Your task to perform on an android device: Search for lg ultragear on costco, select the first entry, and add it to the cart. Image 0: 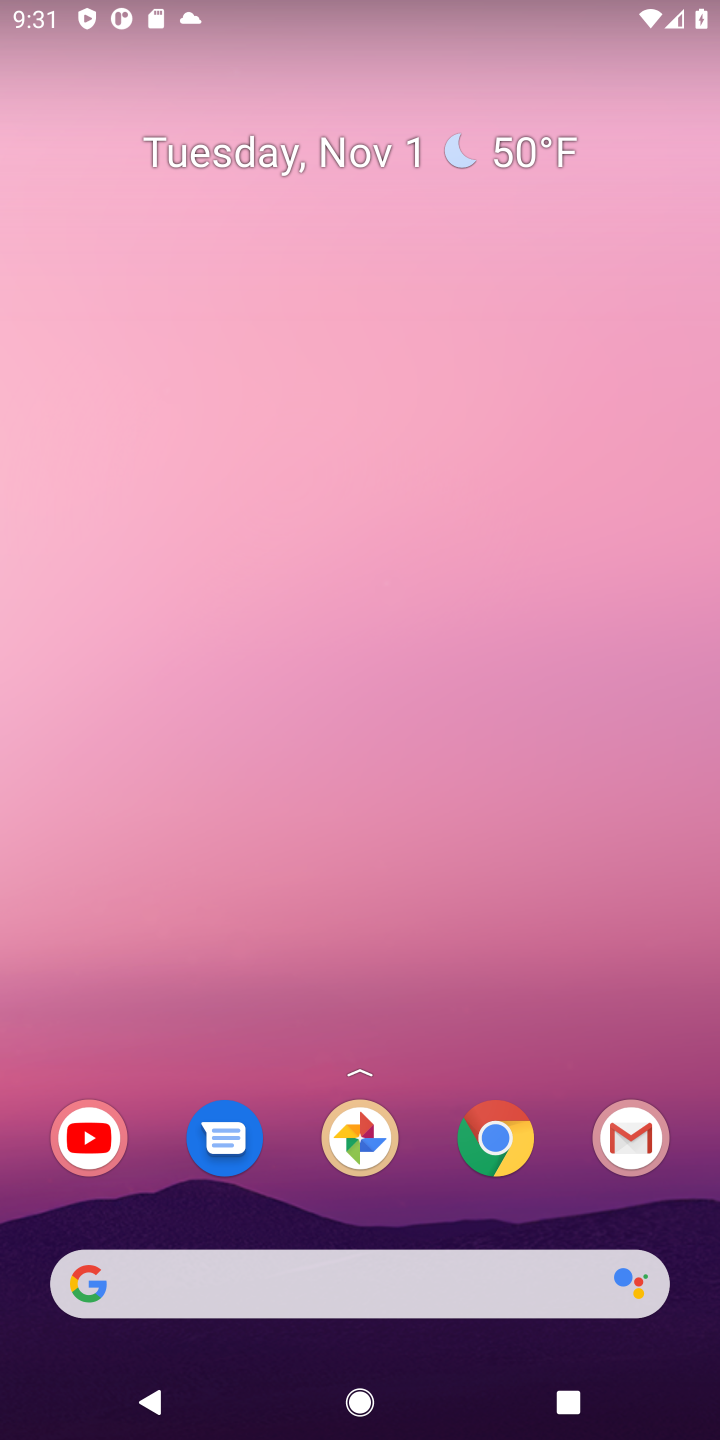
Step 0: click (502, 1144)
Your task to perform on an android device: Search for lg ultragear on costco, select the first entry, and add it to the cart. Image 1: 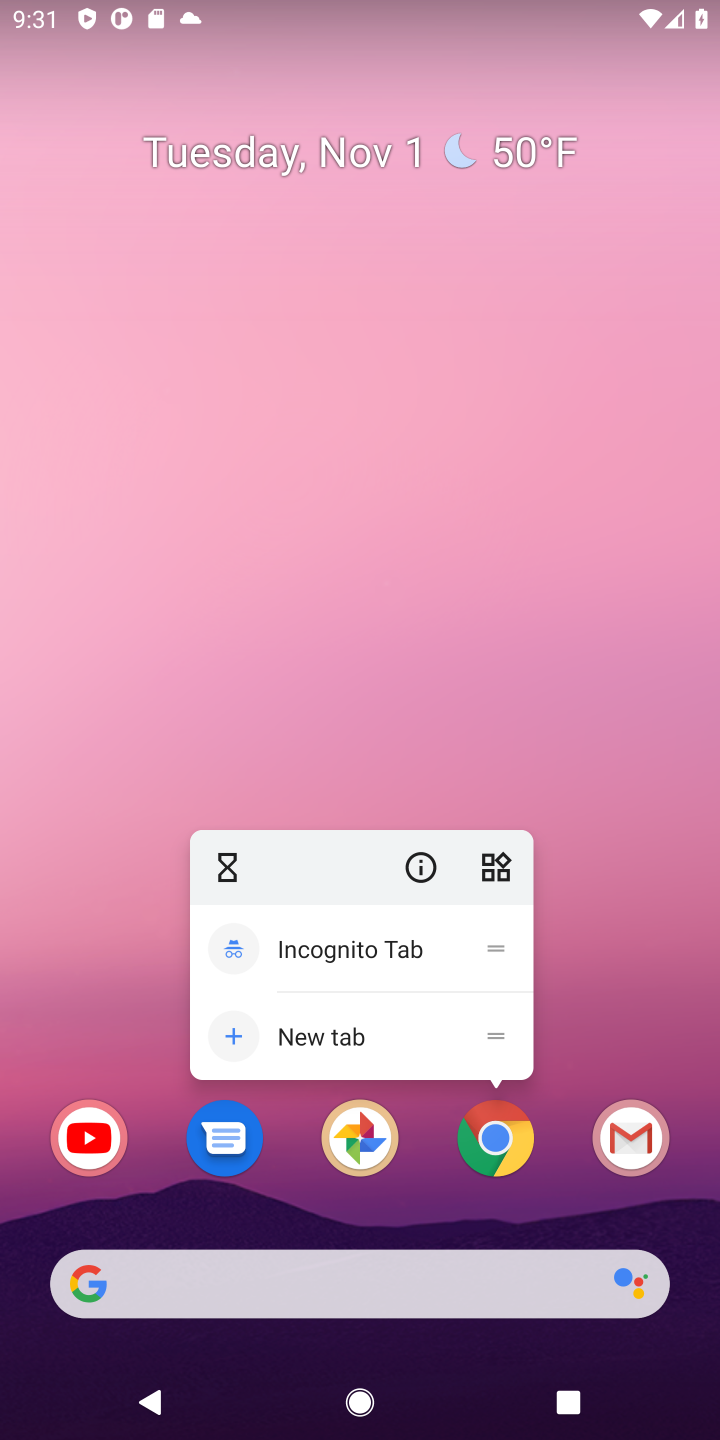
Step 1: click (495, 1139)
Your task to perform on an android device: Search for lg ultragear on costco, select the first entry, and add it to the cart. Image 2: 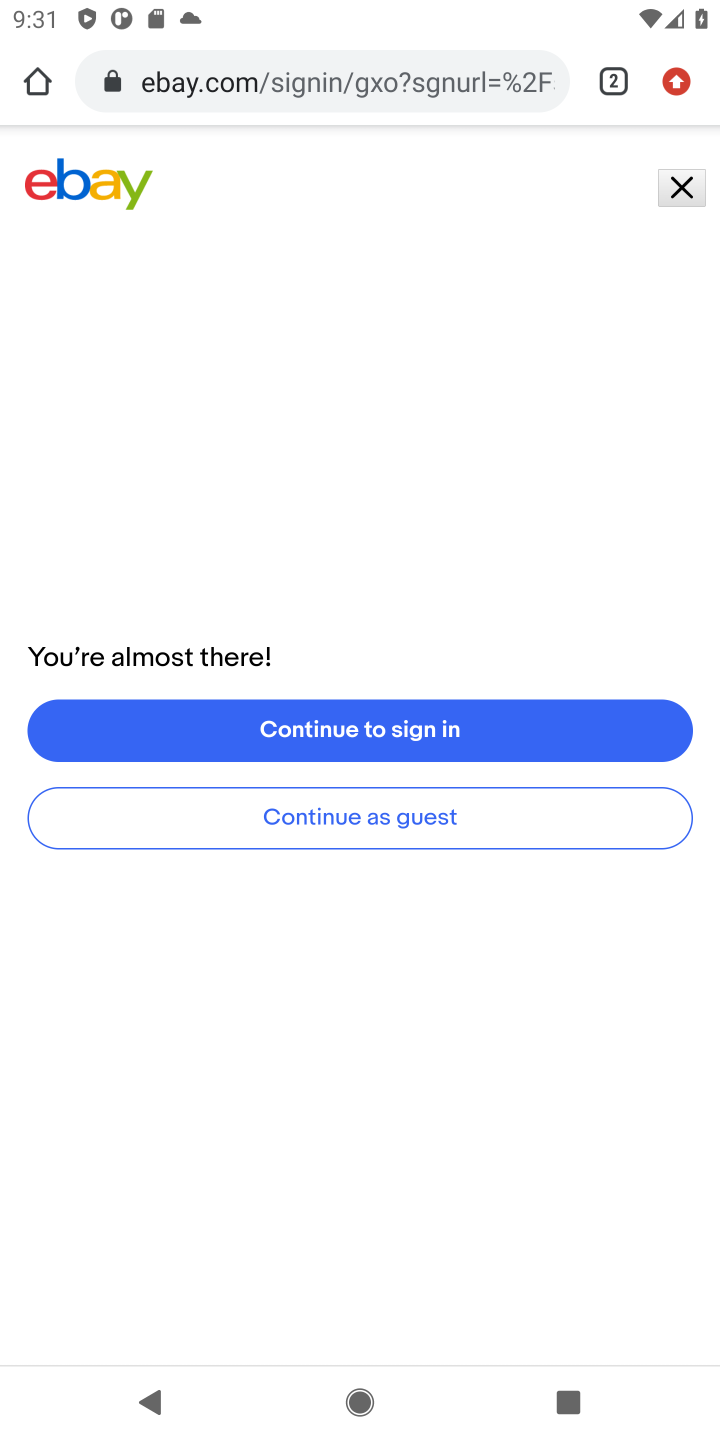
Step 2: click (394, 88)
Your task to perform on an android device: Search for lg ultragear on costco, select the first entry, and add it to the cart. Image 3: 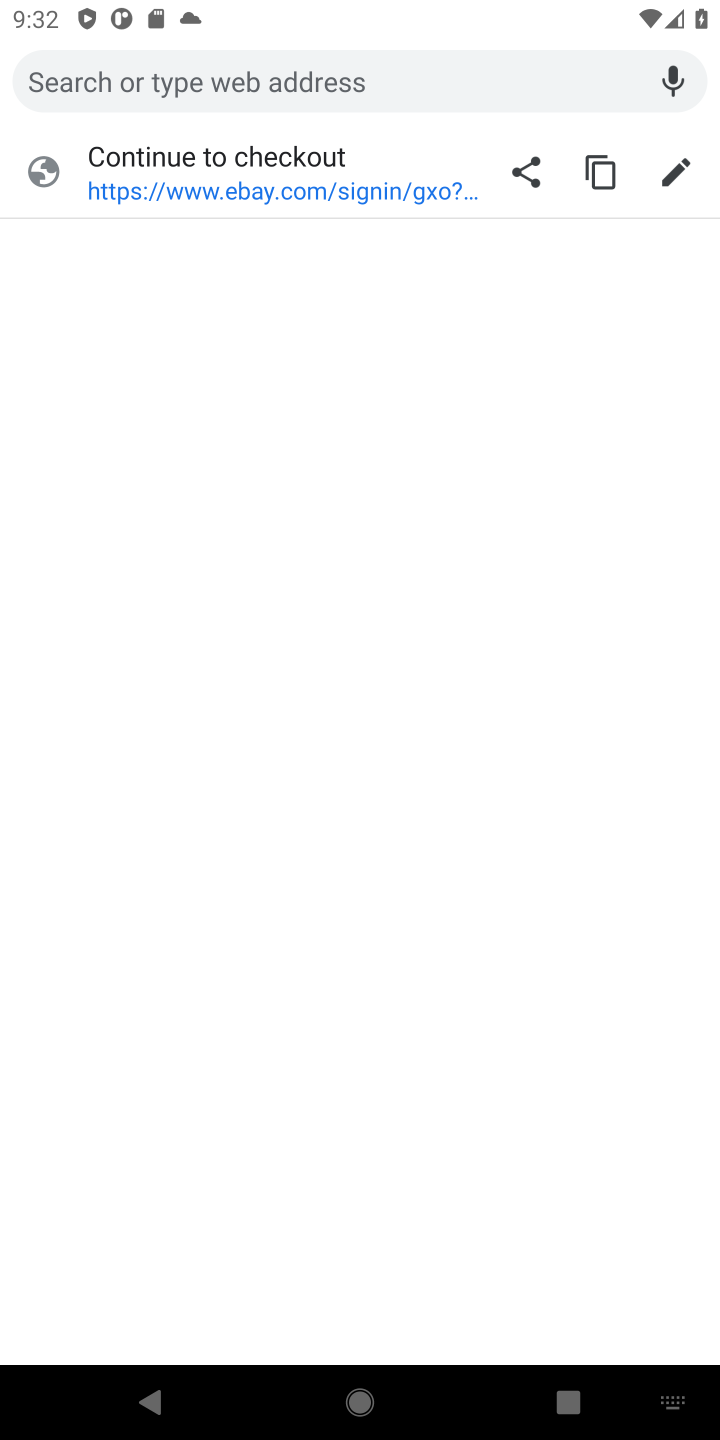
Step 3: type "costco"
Your task to perform on an android device: Search for lg ultragear on costco, select the first entry, and add it to the cart. Image 4: 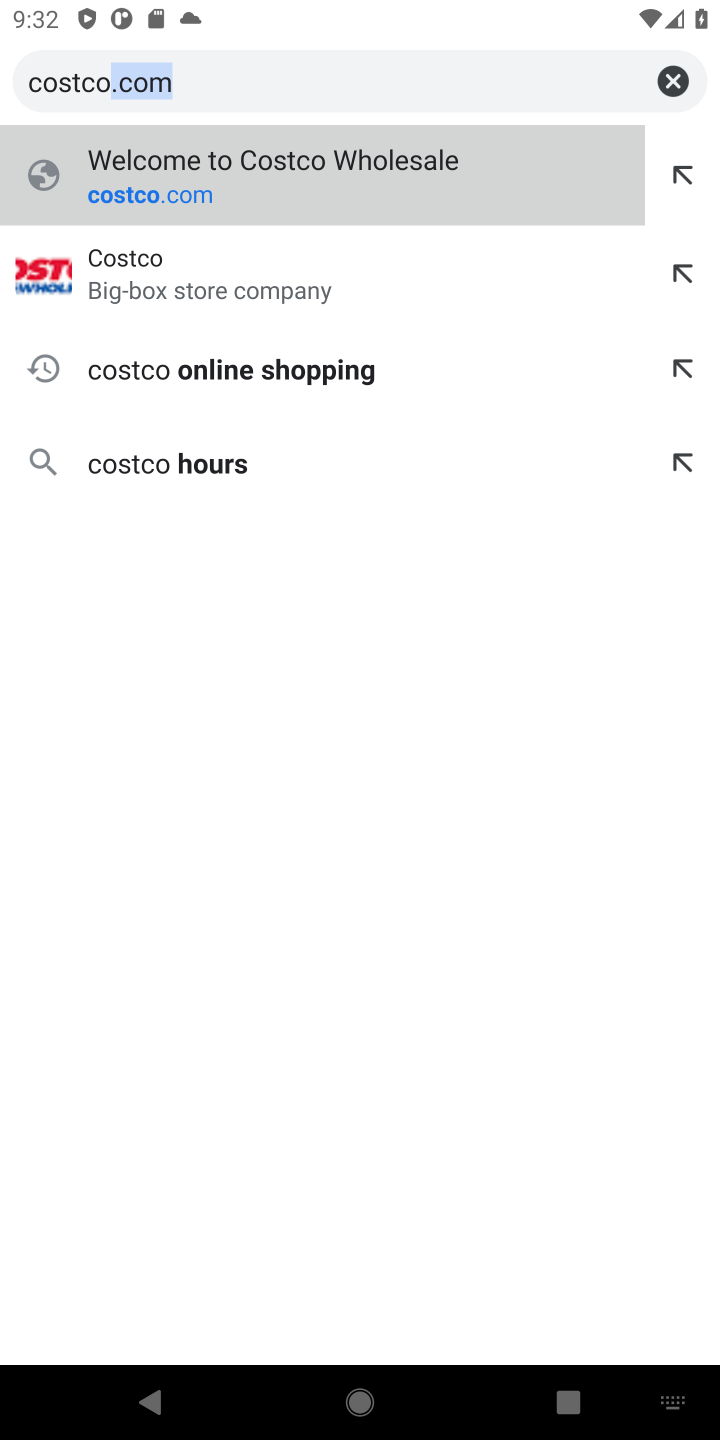
Step 4: click (130, 276)
Your task to perform on an android device: Search for lg ultragear on costco, select the first entry, and add it to the cart. Image 5: 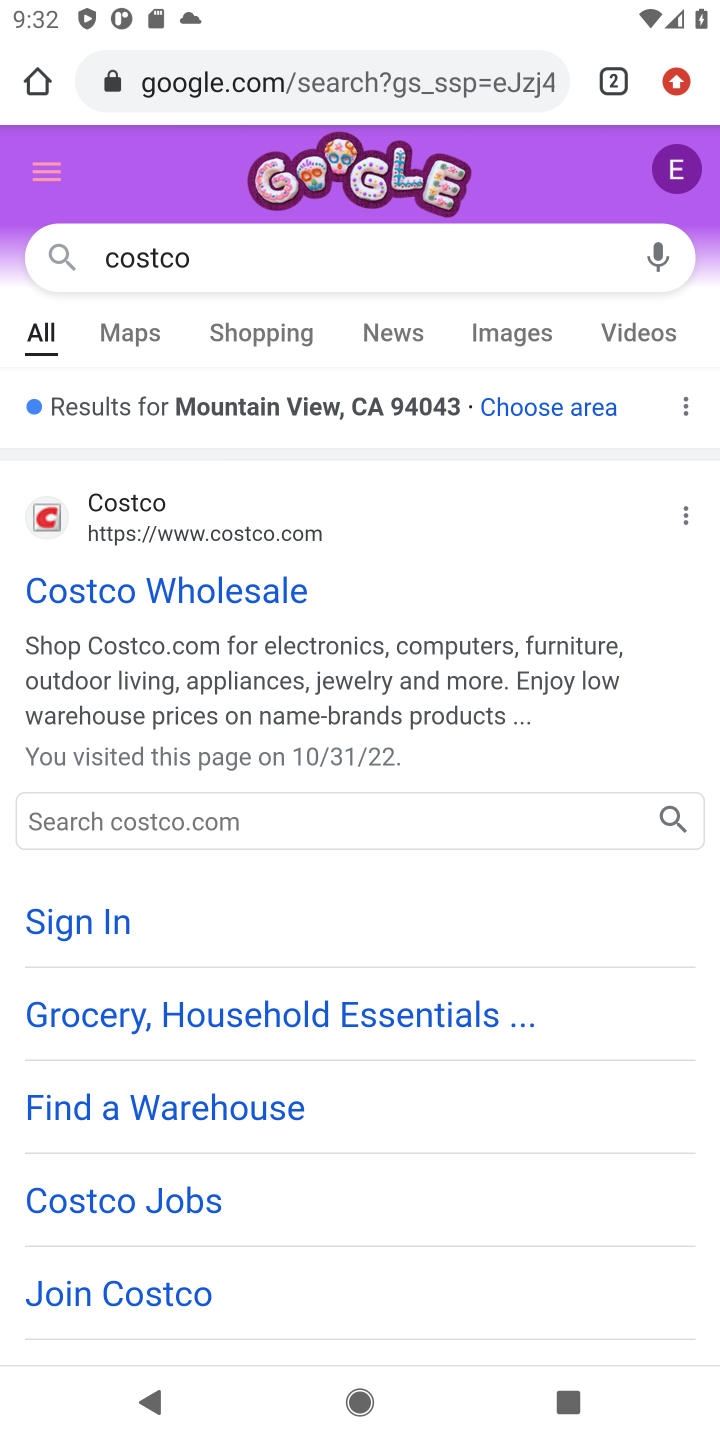
Step 5: click (137, 586)
Your task to perform on an android device: Search for lg ultragear on costco, select the first entry, and add it to the cart. Image 6: 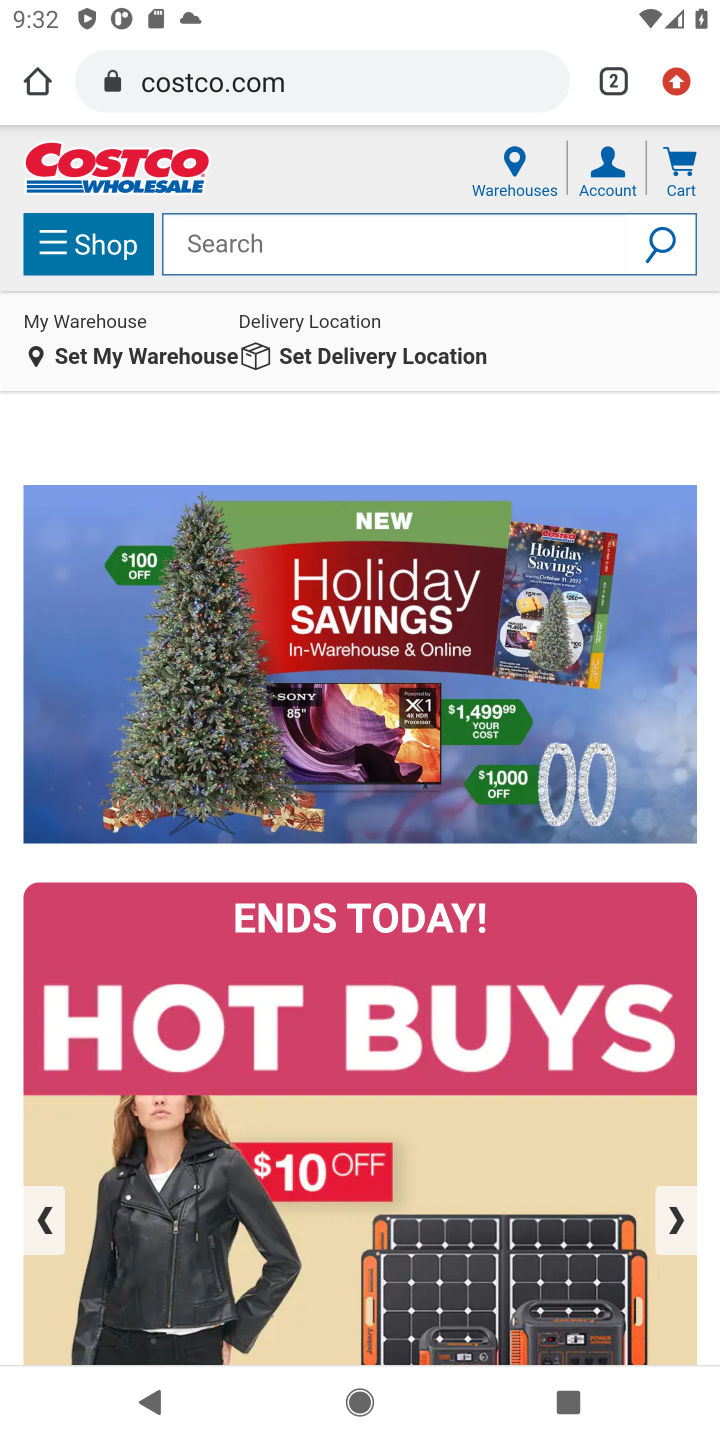
Step 6: click (365, 237)
Your task to perform on an android device: Search for lg ultragear on costco, select the first entry, and add it to the cart. Image 7: 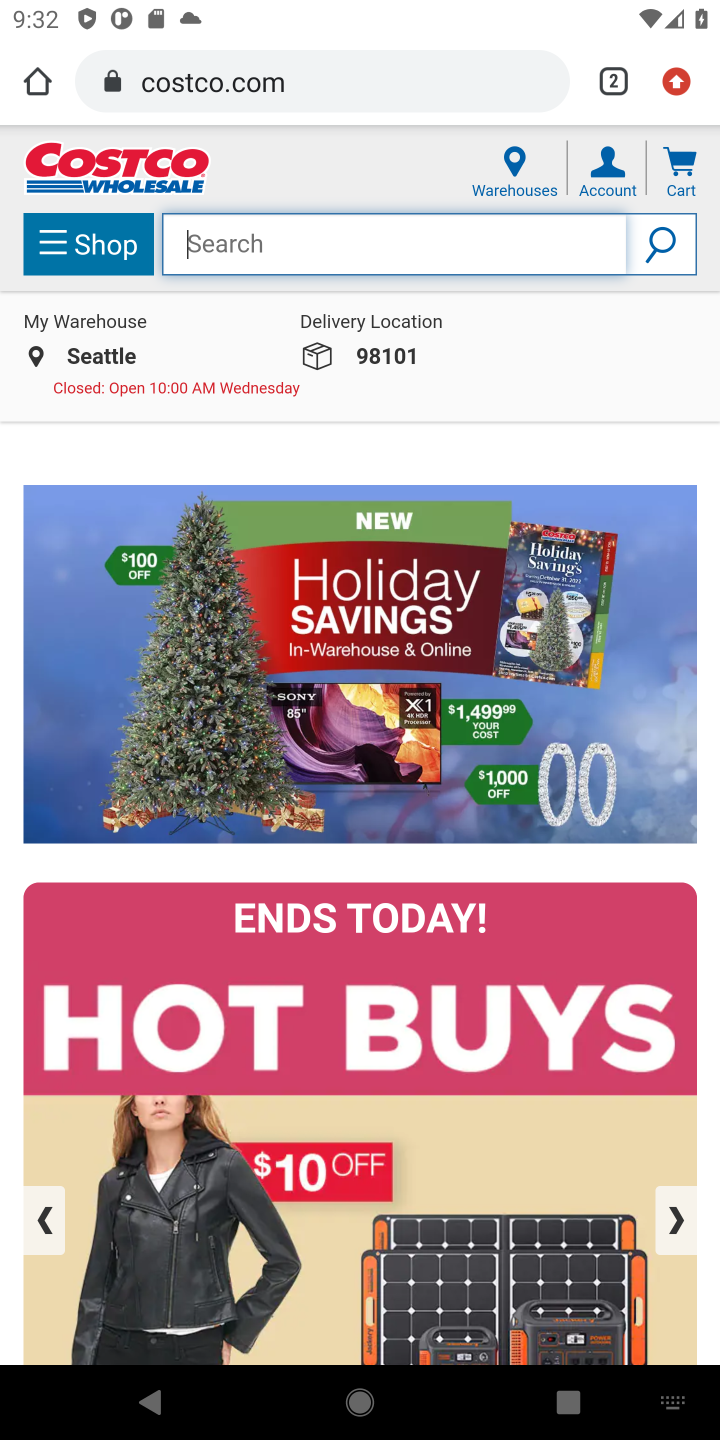
Step 7: type "lg ultragear"
Your task to perform on an android device: Search for lg ultragear on costco, select the first entry, and add it to the cart. Image 8: 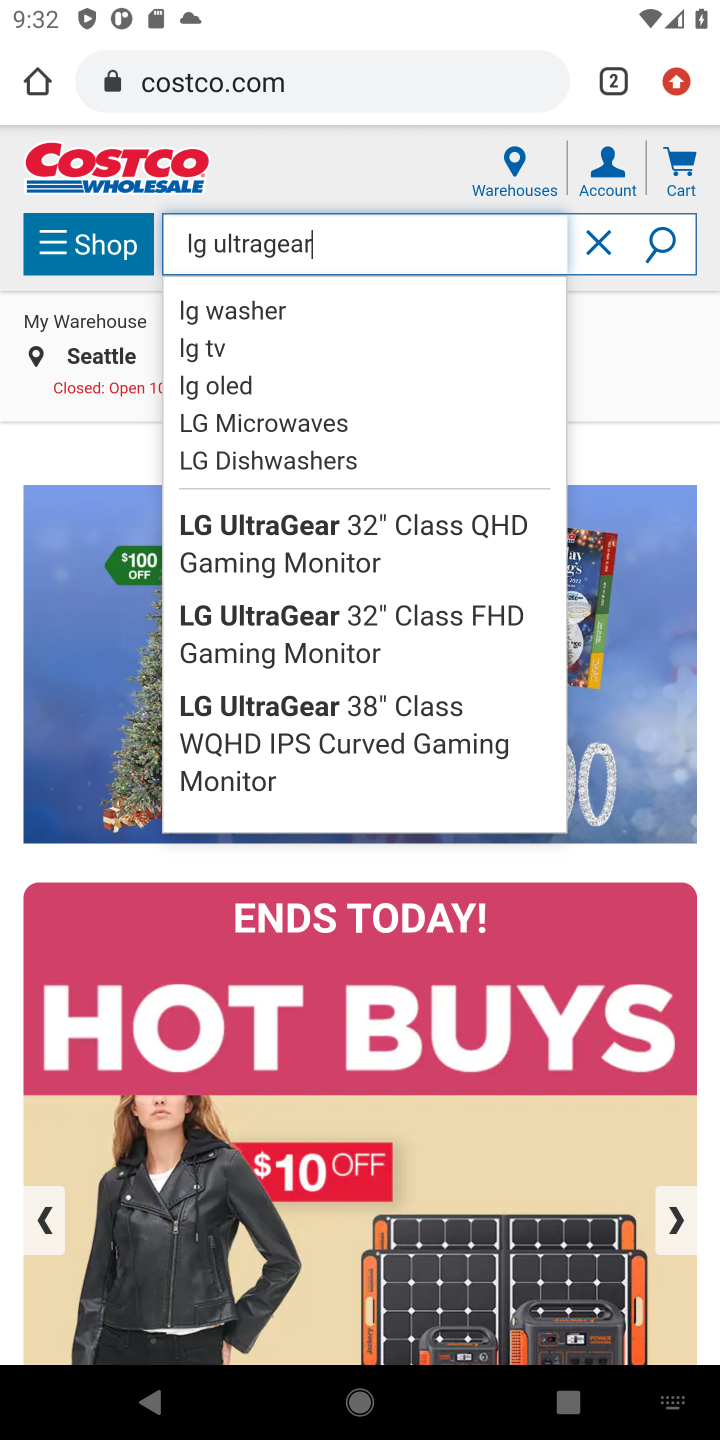
Step 8: click (659, 238)
Your task to perform on an android device: Search for lg ultragear on costco, select the first entry, and add it to the cart. Image 9: 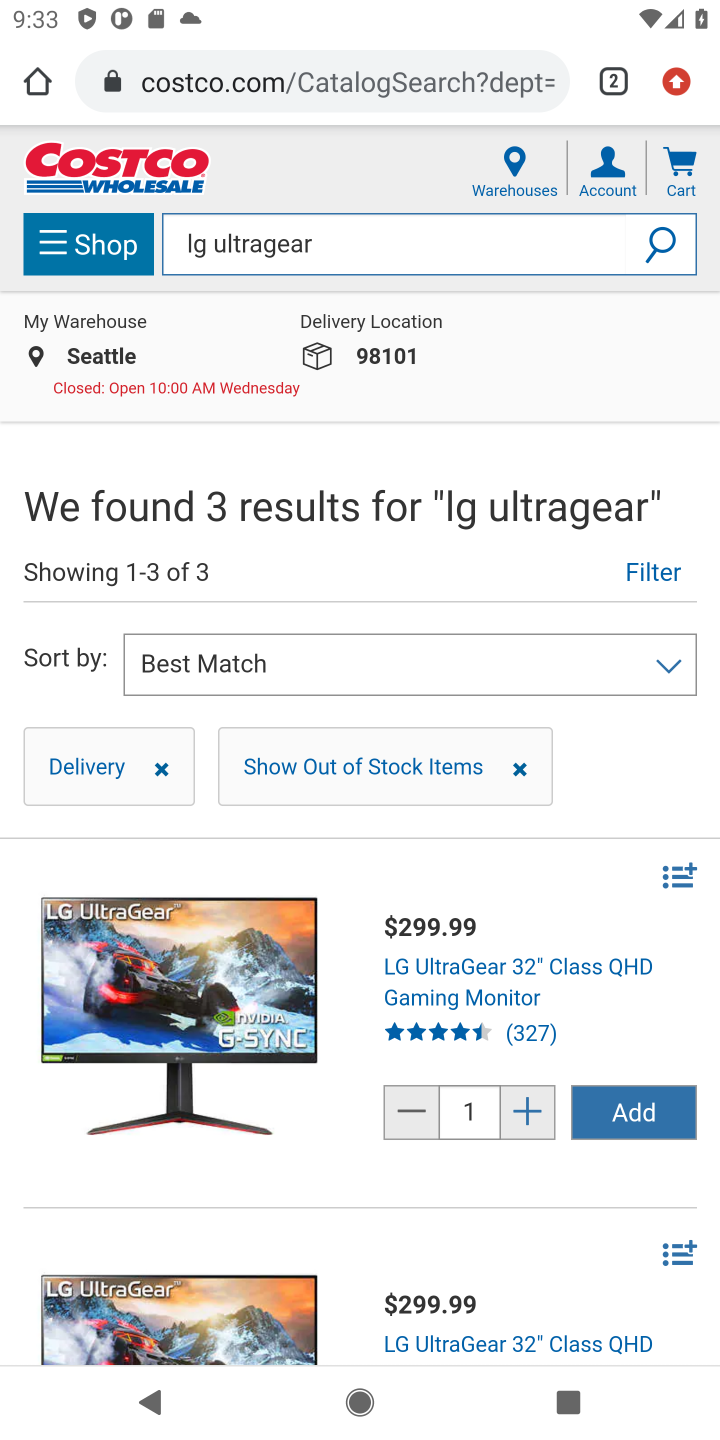
Step 9: click (498, 964)
Your task to perform on an android device: Search for lg ultragear on costco, select the first entry, and add it to the cart. Image 10: 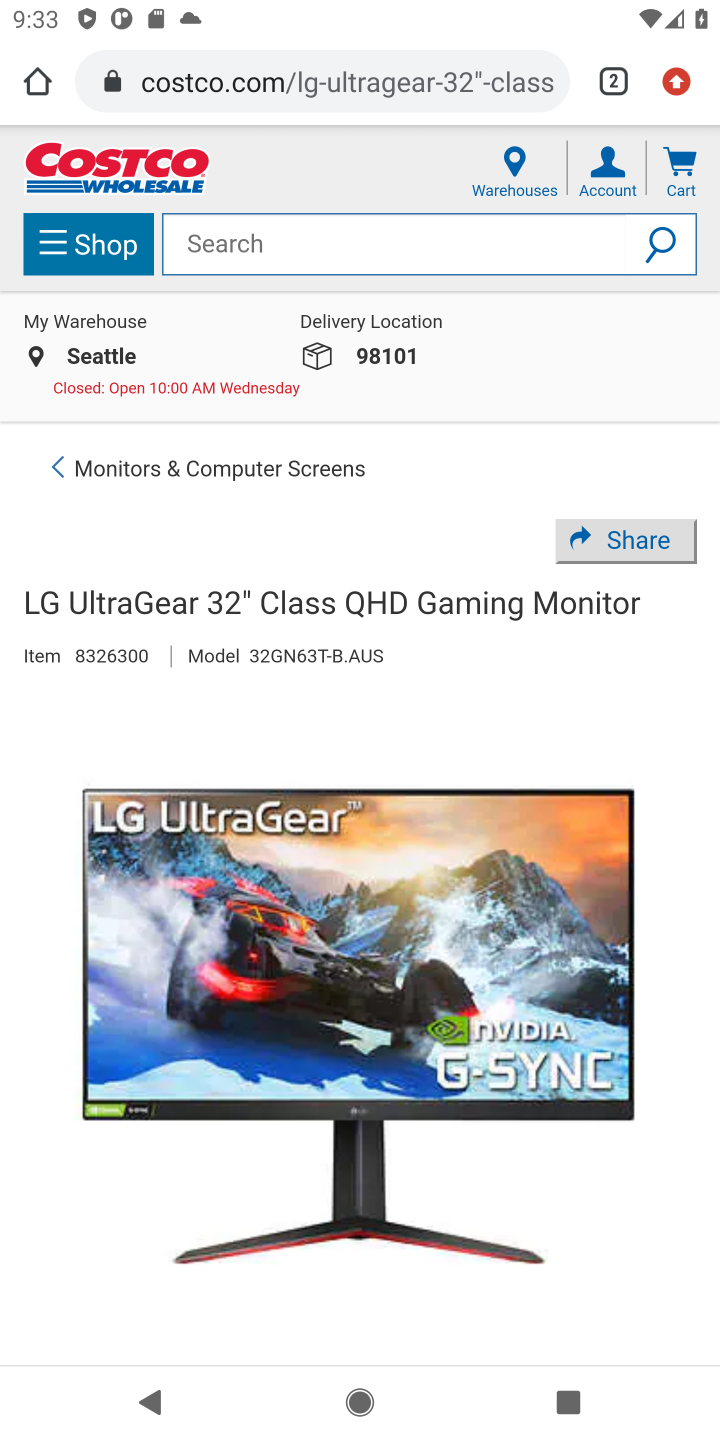
Step 10: drag from (540, 1179) to (625, 434)
Your task to perform on an android device: Search for lg ultragear on costco, select the first entry, and add it to the cart. Image 11: 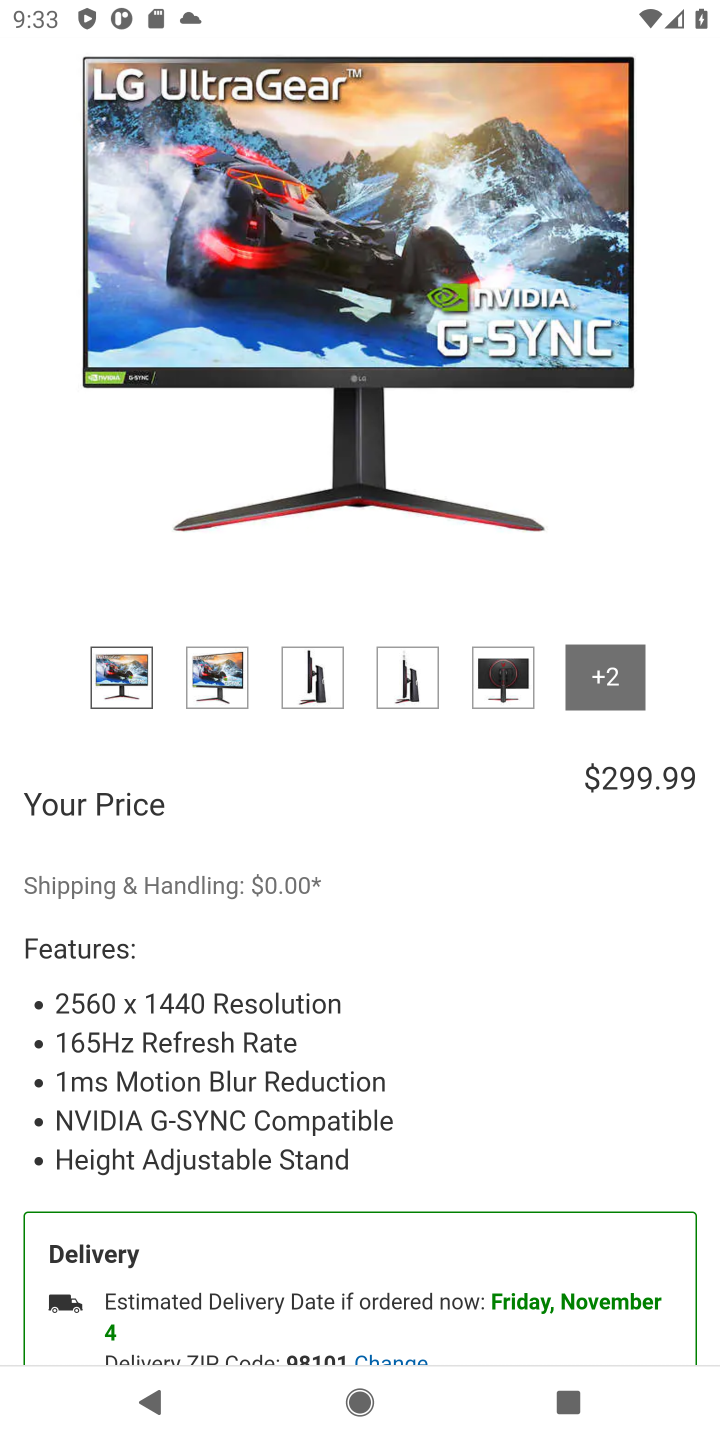
Step 11: drag from (433, 1090) to (502, 429)
Your task to perform on an android device: Search for lg ultragear on costco, select the first entry, and add it to the cart. Image 12: 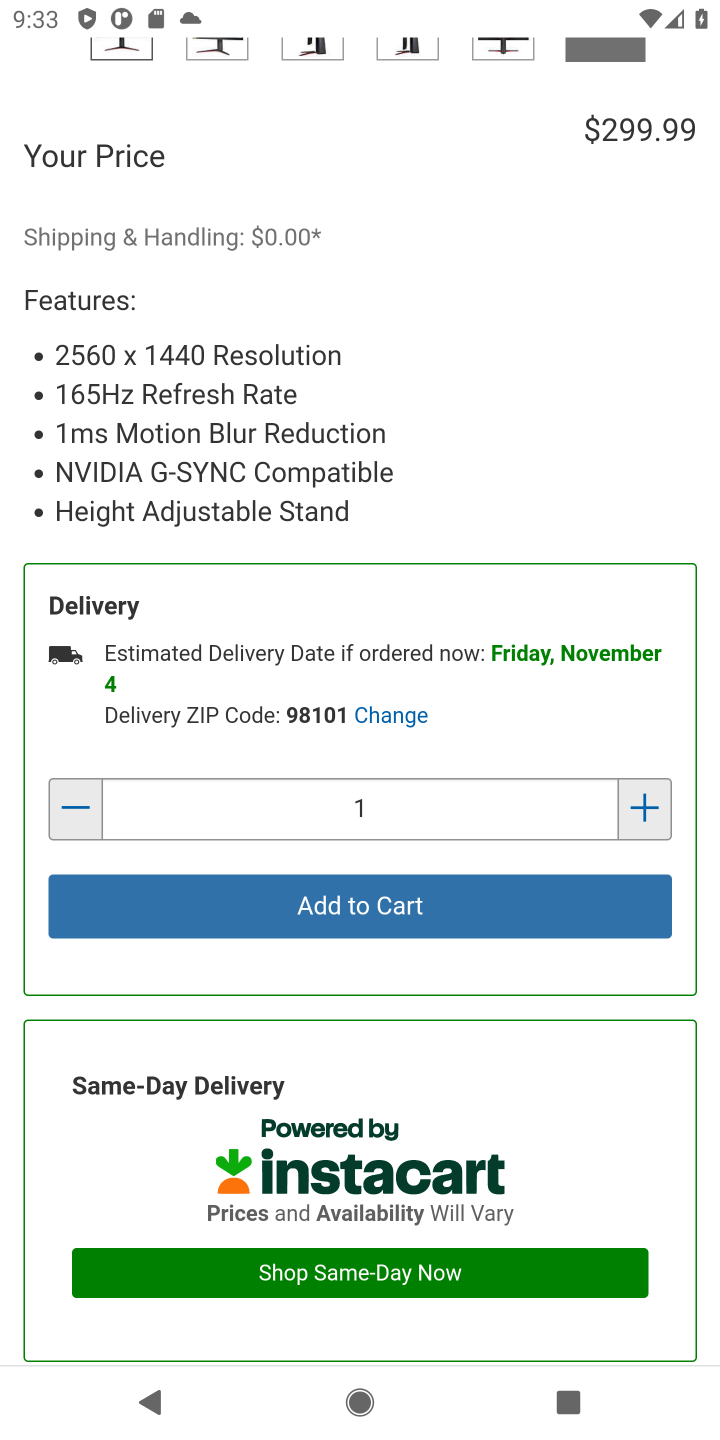
Step 12: click (356, 909)
Your task to perform on an android device: Search for lg ultragear on costco, select the first entry, and add it to the cart. Image 13: 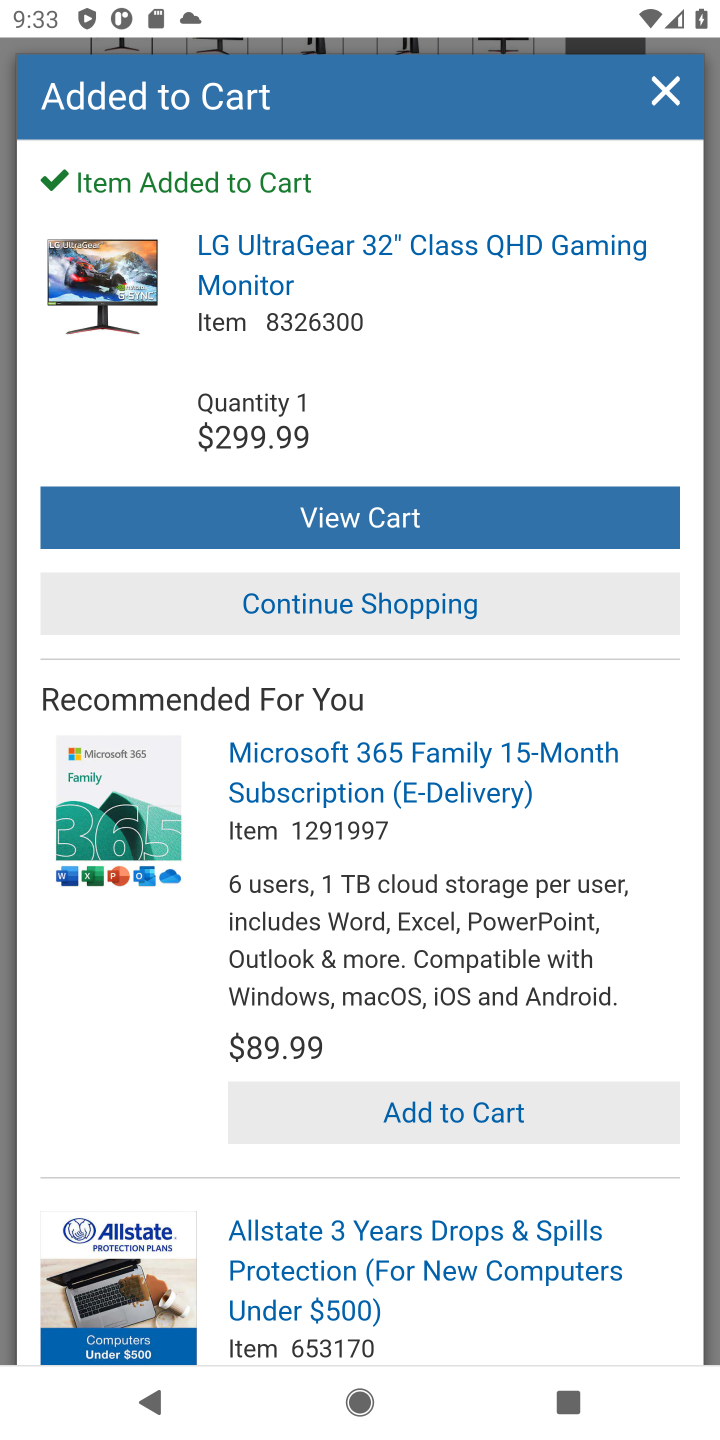
Step 13: click (402, 510)
Your task to perform on an android device: Search for lg ultragear on costco, select the first entry, and add it to the cart. Image 14: 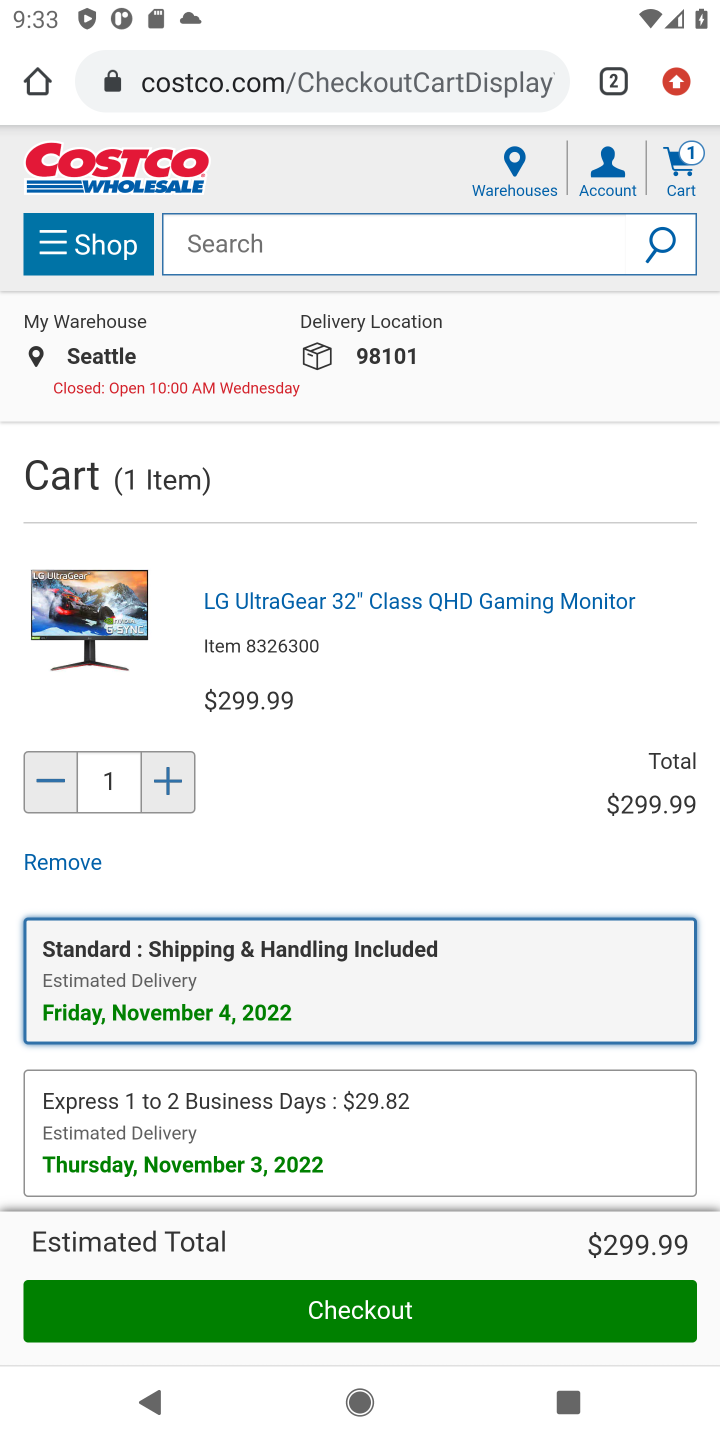
Step 14: task complete